Your task to perform on an android device: Go to notification settings Image 0: 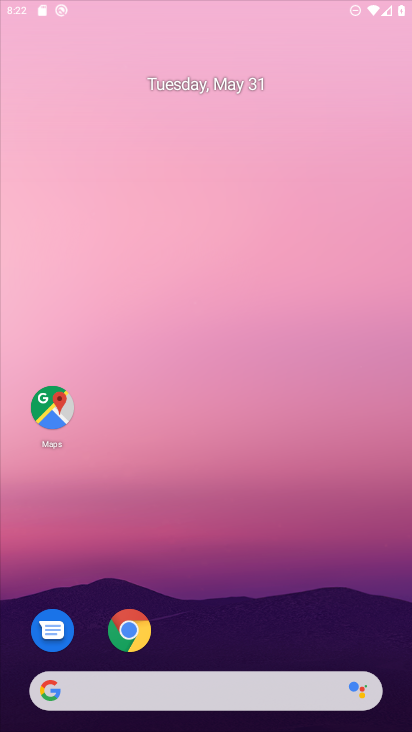
Step 0: press home button
Your task to perform on an android device: Go to notification settings Image 1: 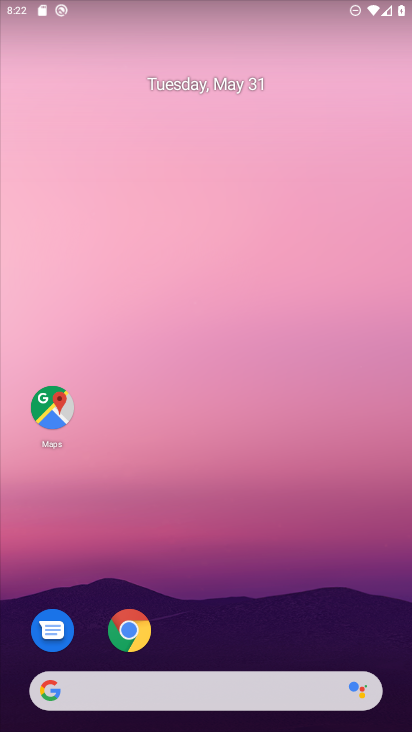
Step 1: drag from (316, 659) to (289, 163)
Your task to perform on an android device: Go to notification settings Image 2: 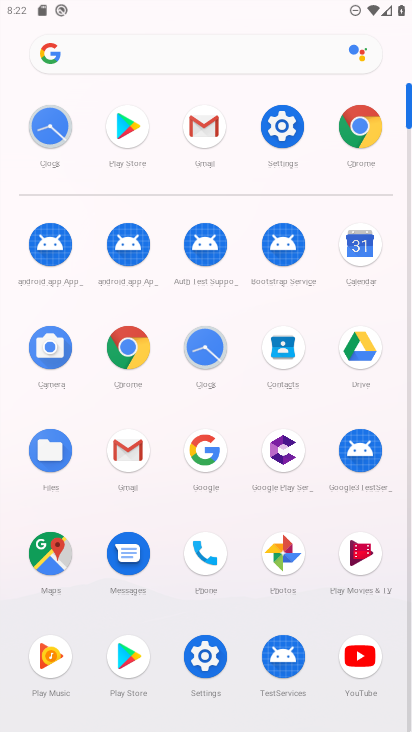
Step 2: click (276, 143)
Your task to perform on an android device: Go to notification settings Image 3: 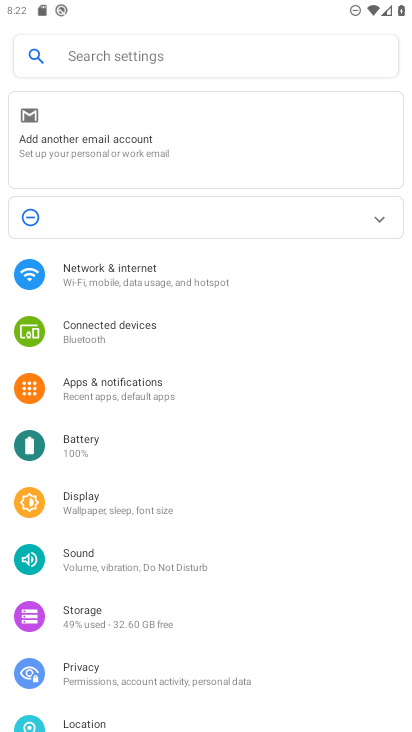
Step 3: click (137, 389)
Your task to perform on an android device: Go to notification settings Image 4: 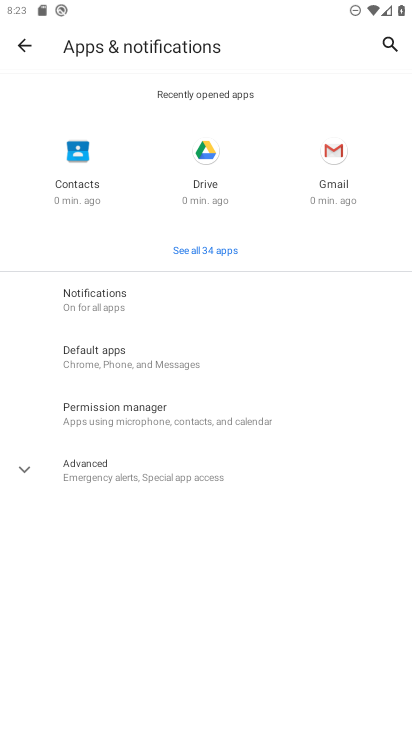
Step 4: click (140, 305)
Your task to perform on an android device: Go to notification settings Image 5: 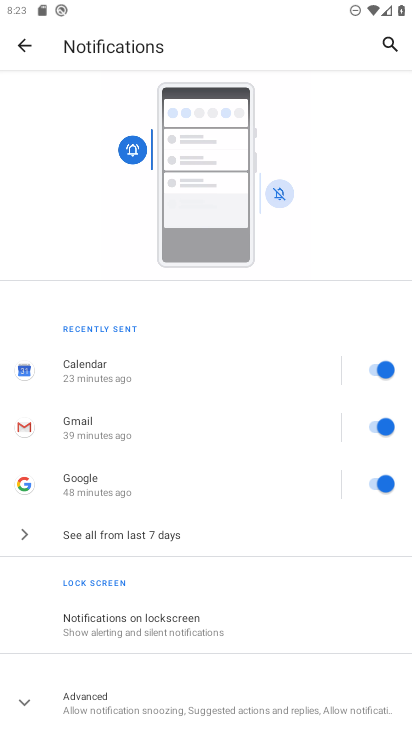
Step 5: task complete